Your task to perform on an android device: What's the weather today? Image 0: 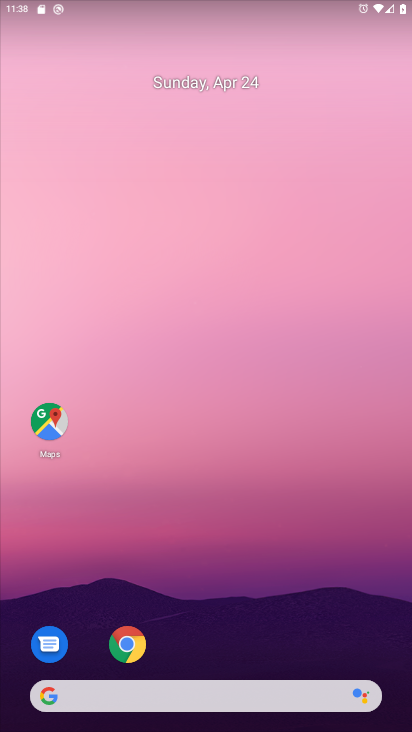
Step 0: click (176, 690)
Your task to perform on an android device: What's the weather today? Image 1: 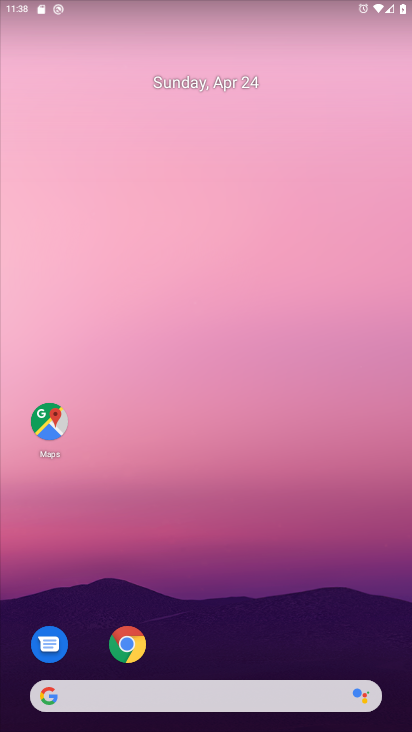
Step 1: click (176, 690)
Your task to perform on an android device: What's the weather today? Image 2: 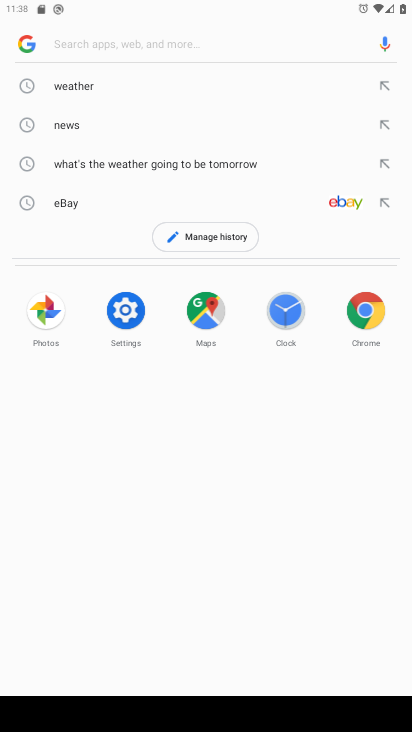
Step 2: click (107, 91)
Your task to perform on an android device: What's the weather today? Image 3: 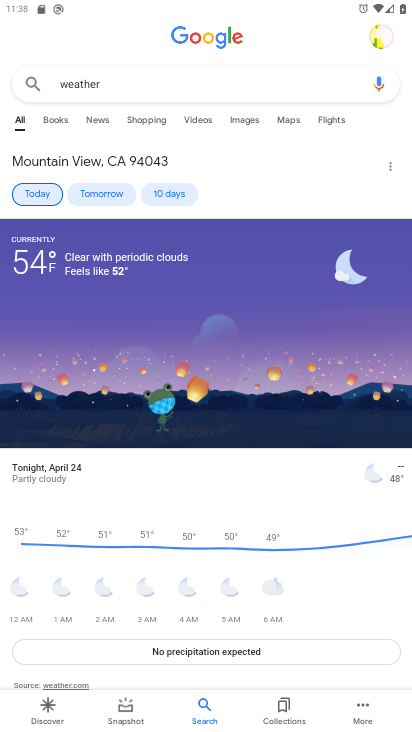
Step 3: task complete